Your task to perform on an android device: Go to notification settings Image 0: 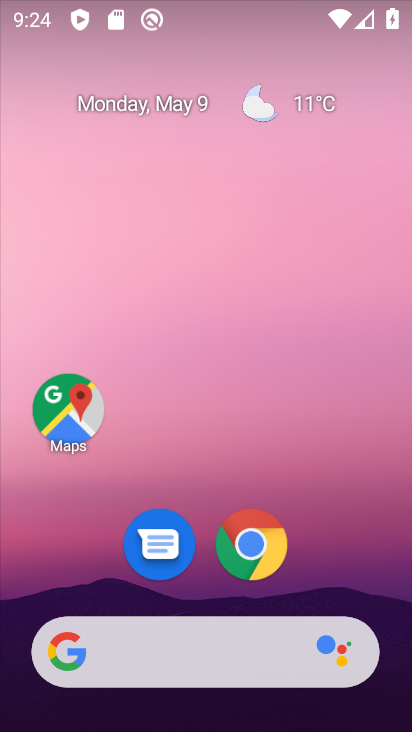
Step 0: drag from (376, 453) to (361, 328)
Your task to perform on an android device: Go to notification settings Image 1: 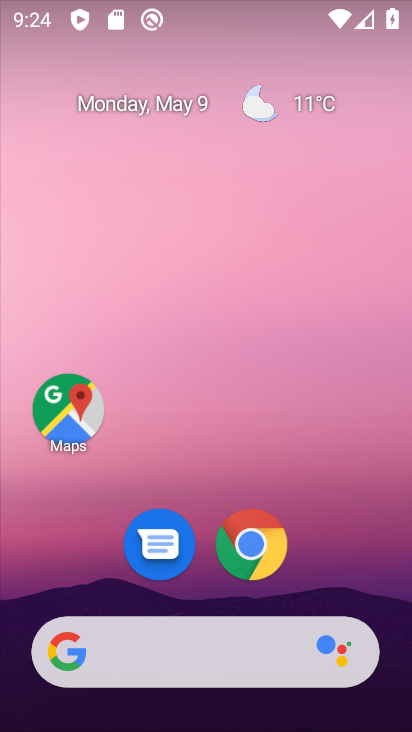
Step 1: drag from (397, 668) to (366, 321)
Your task to perform on an android device: Go to notification settings Image 2: 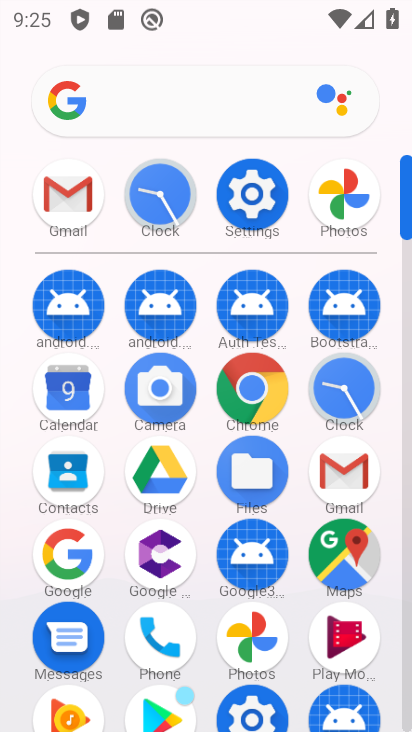
Step 2: click (240, 196)
Your task to perform on an android device: Go to notification settings Image 3: 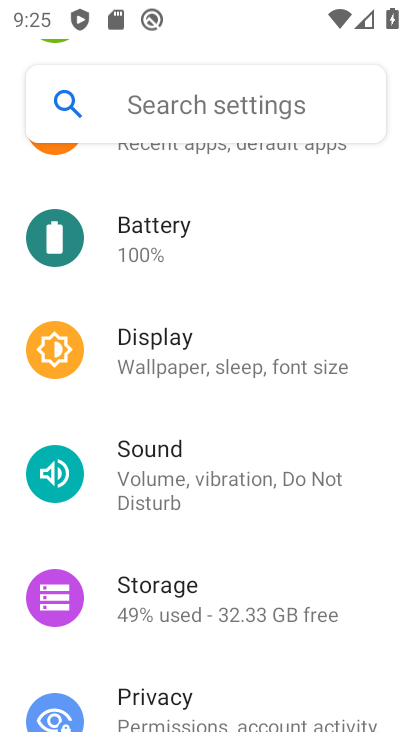
Step 3: drag from (377, 265) to (373, 564)
Your task to perform on an android device: Go to notification settings Image 4: 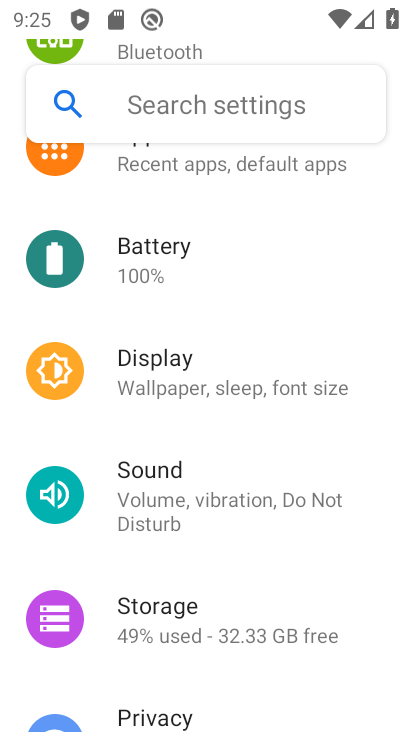
Step 4: drag from (365, 213) to (361, 578)
Your task to perform on an android device: Go to notification settings Image 5: 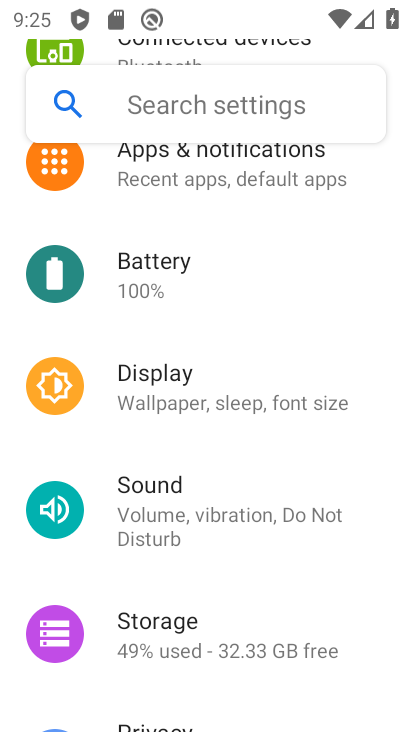
Step 5: click (167, 143)
Your task to perform on an android device: Go to notification settings Image 6: 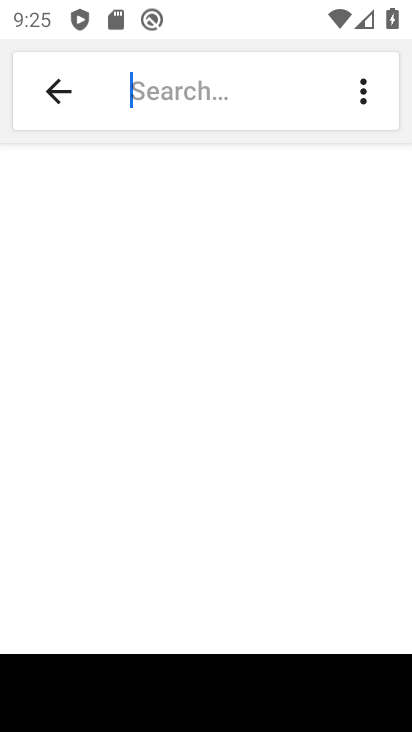
Step 6: click (46, 83)
Your task to perform on an android device: Go to notification settings Image 7: 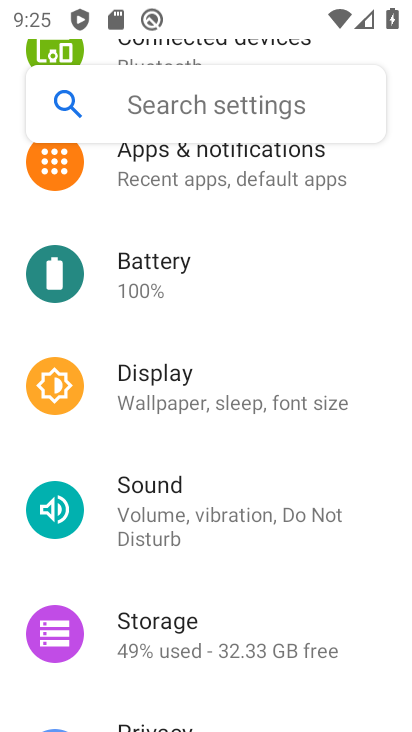
Step 7: click (188, 158)
Your task to perform on an android device: Go to notification settings Image 8: 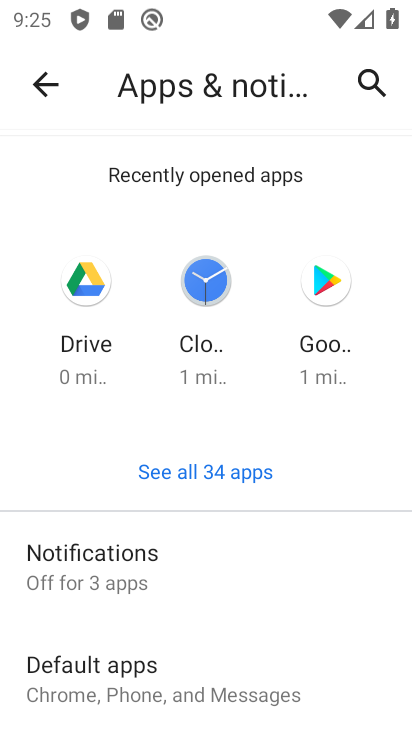
Step 8: click (70, 554)
Your task to perform on an android device: Go to notification settings Image 9: 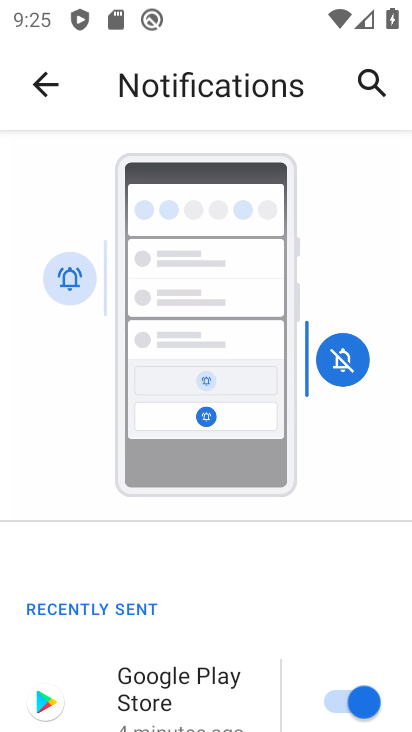
Step 9: task complete